Your task to perform on an android device: open the mobile data screen to see how much data has been used Image 0: 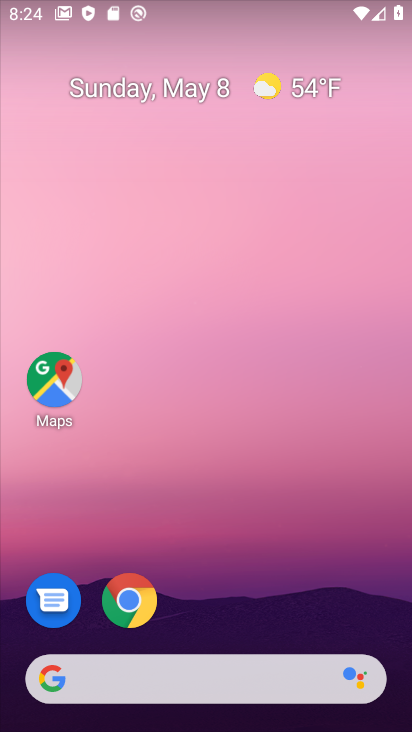
Step 0: drag from (206, 628) to (224, 130)
Your task to perform on an android device: open the mobile data screen to see how much data has been used Image 1: 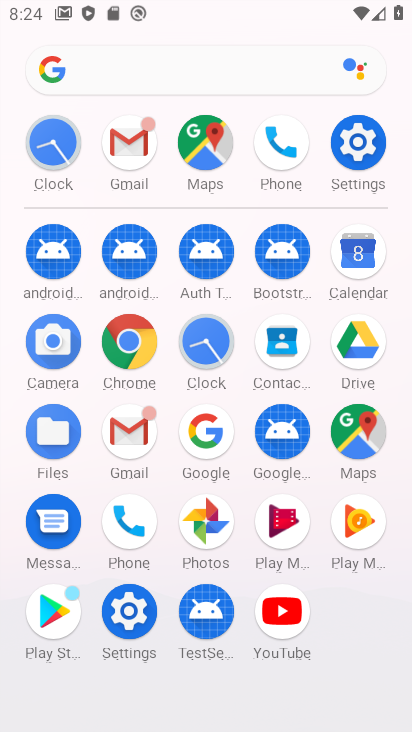
Step 1: click (351, 163)
Your task to perform on an android device: open the mobile data screen to see how much data has been used Image 2: 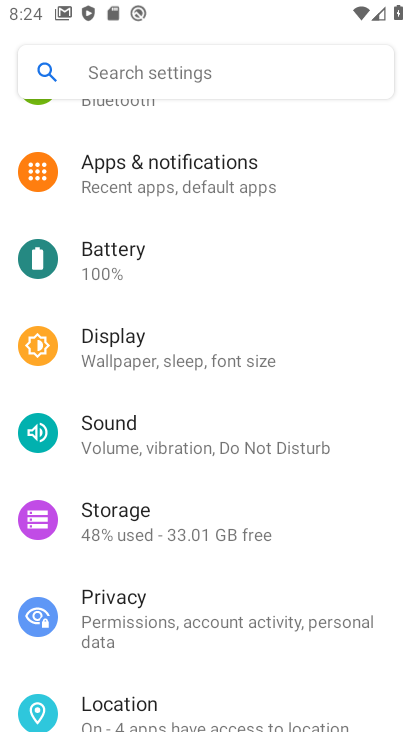
Step 2: drag from (180, 126) to (216, 632)
Your task to perform on an android device: open the mobile data screen to see how much data has been used Image 3: 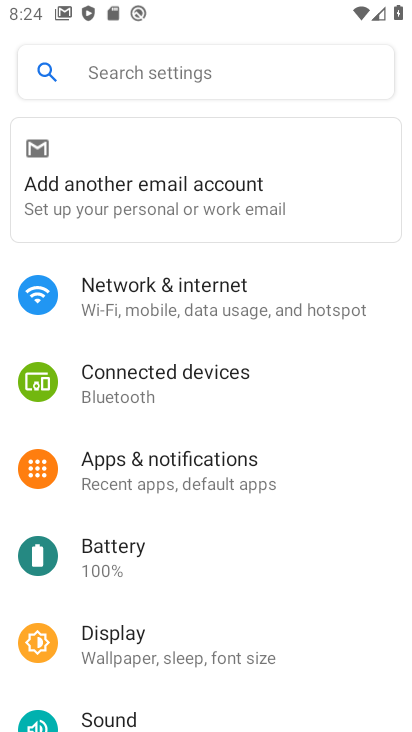
Step 3: click (184, 327)
Your task to perform on an android device: open the mobile data screen to see how much data has been used Image 4: 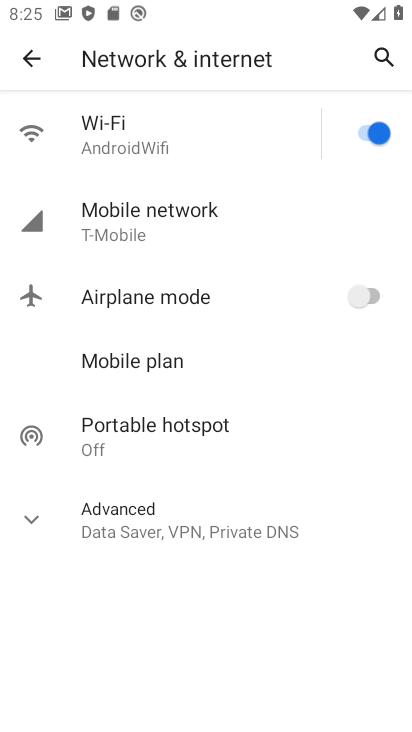
Step 4: click (261, 251)
Your task to perform on an android device: open the mobile data screen to see how much data has been used Image 5: 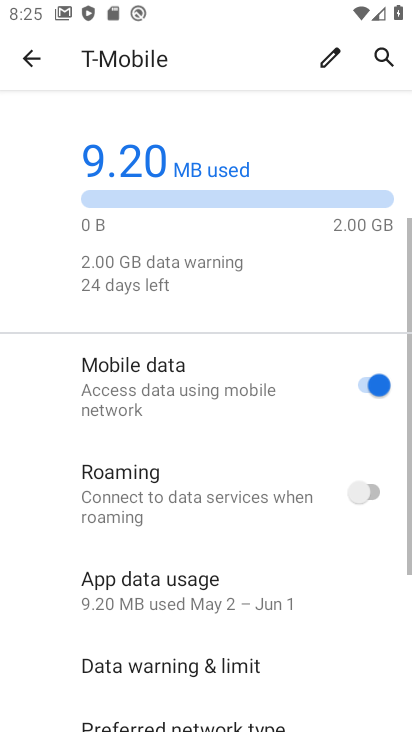
Step 5: task complete